Your task to perform on an android device: turn off wifi Image 0: 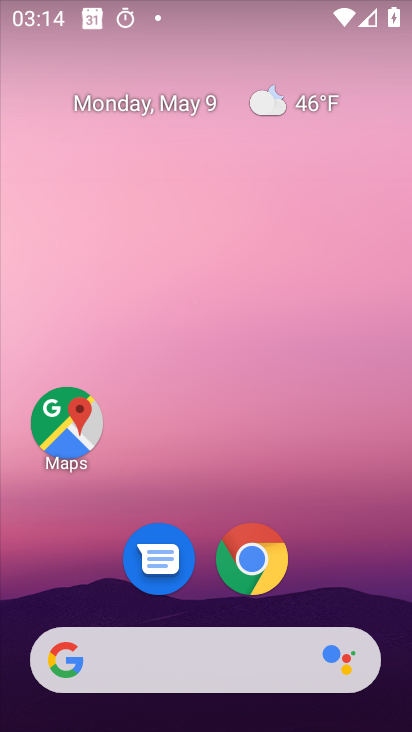
Step 0: drag from (327, 565) to (280, 37)
Your task to perform on an android device: turn off wifi Image 1: 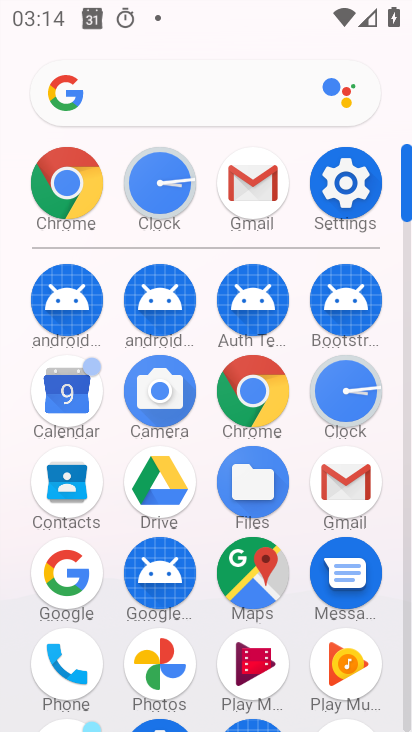
Step 1: click (346, 203)
Your task to perform on an android device: turn off wifi Image 2: 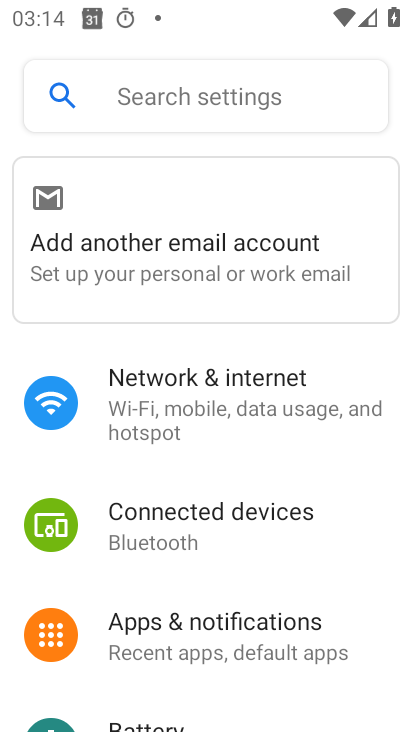
Step 2: click (172, 399)
Your task to perform on an android device: turn off wifi Image 3: 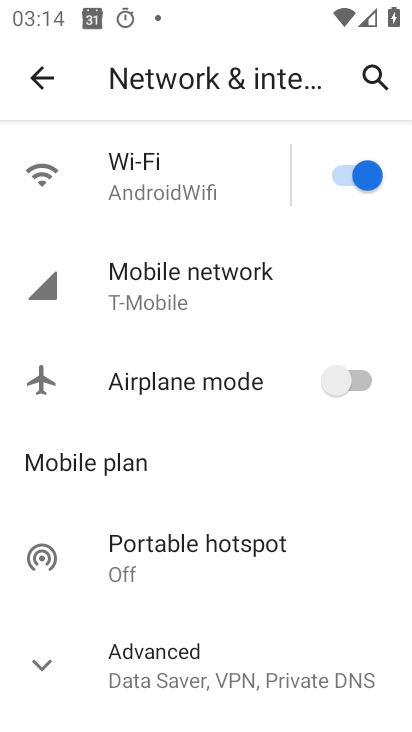
Step 3: click (342, 167)
Your task to perform on an android device: turn off wifi Image 4: 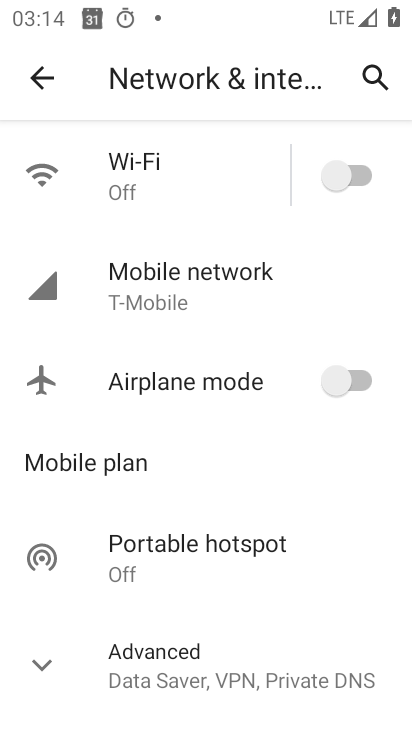
Step 4: task complete